Your task to perform on an android device: Open Google Chrome and click the shortcut for Amazon.com Image 0: 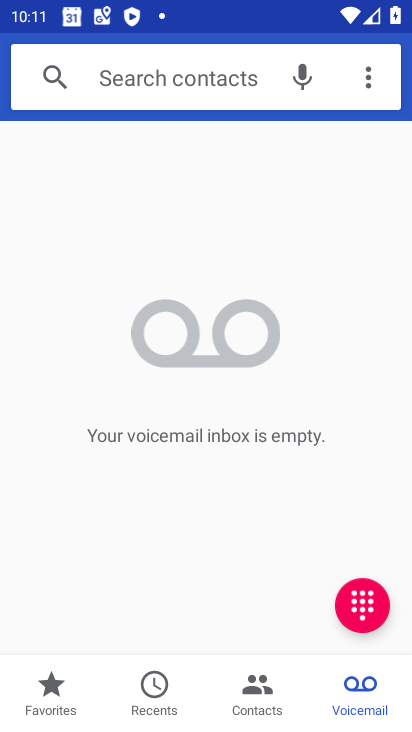
Step 0: press home button
Your task to perform on an android device: Open Google Chrome and click the shortcut for Amazon.com Image 1: 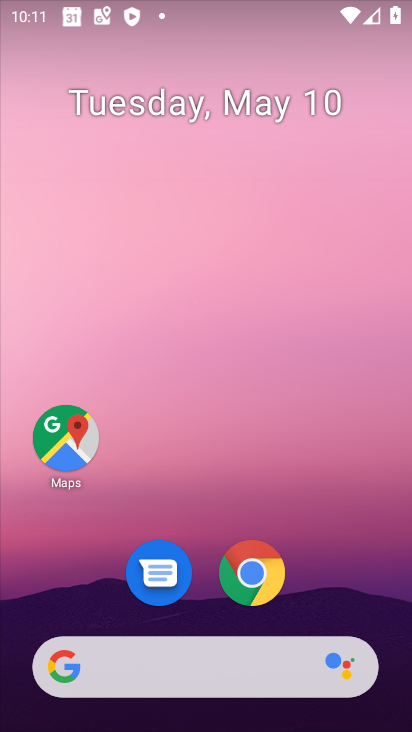
Step 1: click (235, 582)
Your task to perform on an android device: Open Google Chrome and click the shortcut for Amazon.com Image 2: 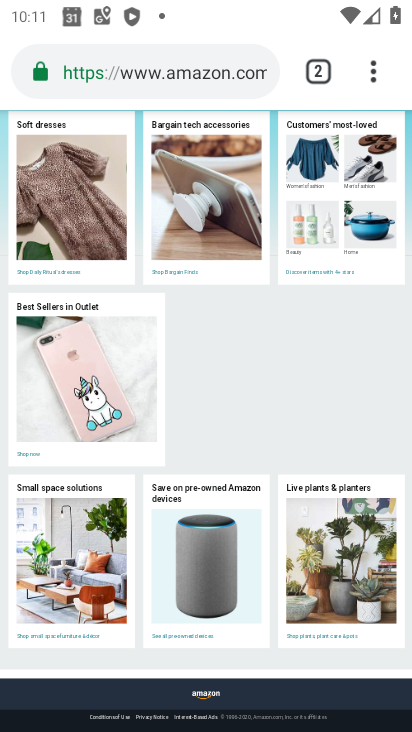
Step 2: click (368, 68)
Your task to perform on an android device: Open Google Chrome and click the shortcut for Amazon.com Image 3: 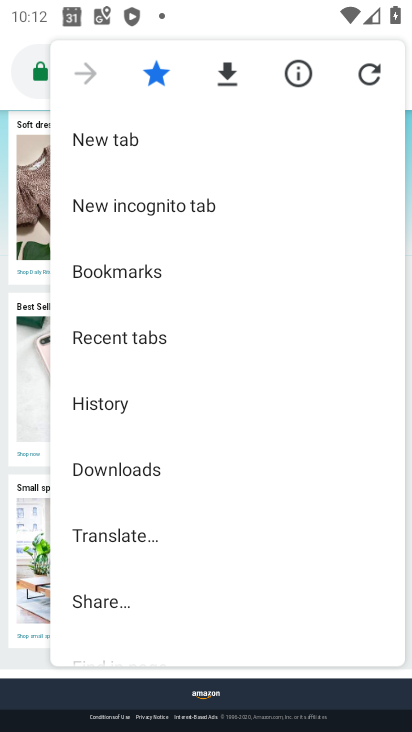
Step 3: drag from (225, 490) to (200, 461)
Your task to perform on an android device: Open Google Chrome and click the shortcut for Amazon.com Image 4: 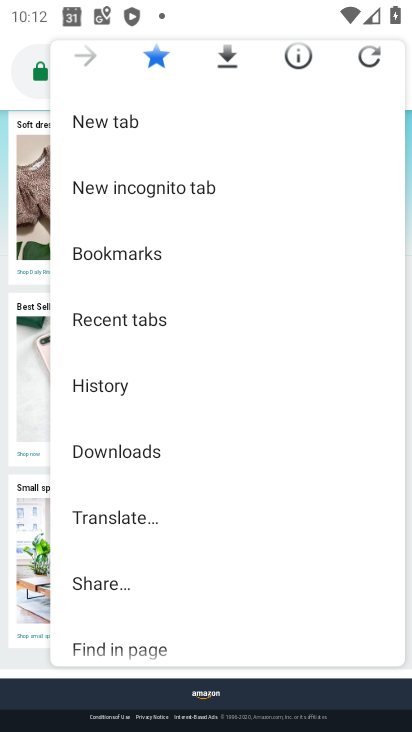
Step 4: click (115, 118)
Your task to perform on an android device: Open Google Chrome and click the shortcut for Amazon.com Image 5: 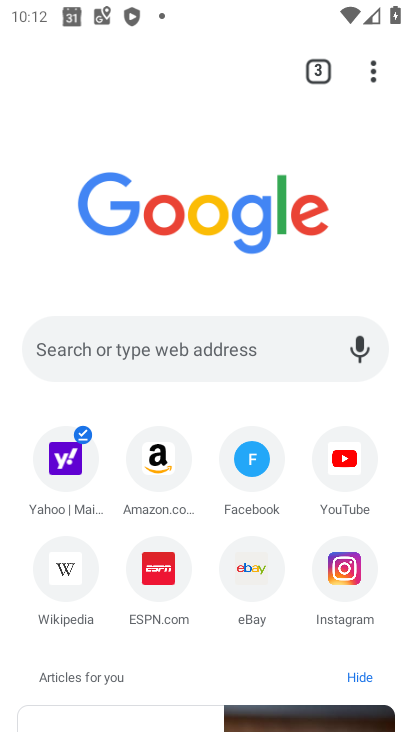
Step 5: click (153, 462)
Your task to perform on an android device: Open Google Chrome and click the shortcut for Amazon.com Image 6: 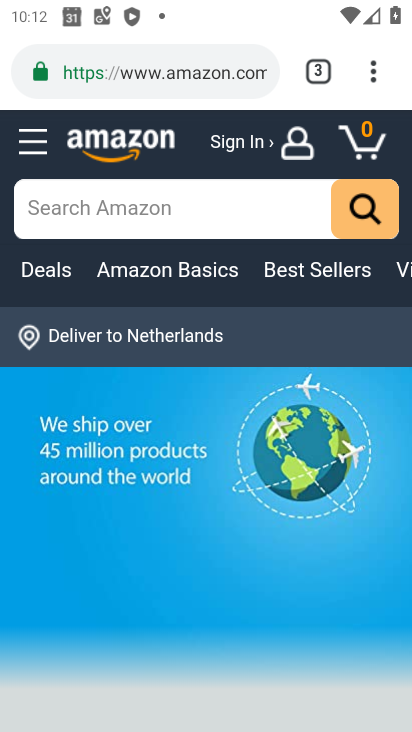
Step 6: task complete